Your task to perform on an android device: Go to sound settings Image 0: 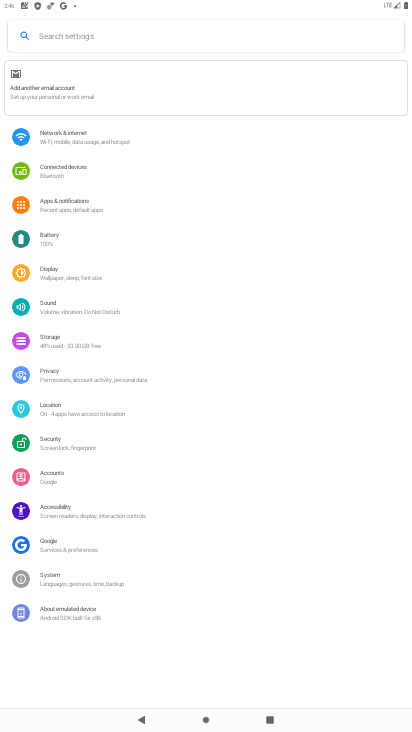
Step 0: click (69, 314)
Your task to perform on an android device: Go to sound settings Image 1: 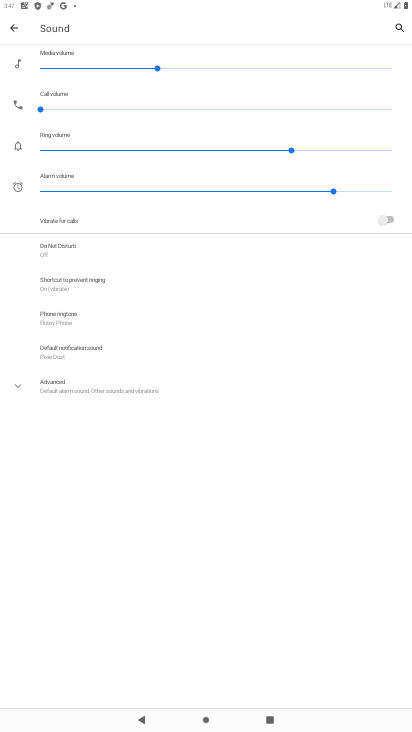
Step 1: task complete